Your task to perform on an android device: Open wifi settings Image 0: 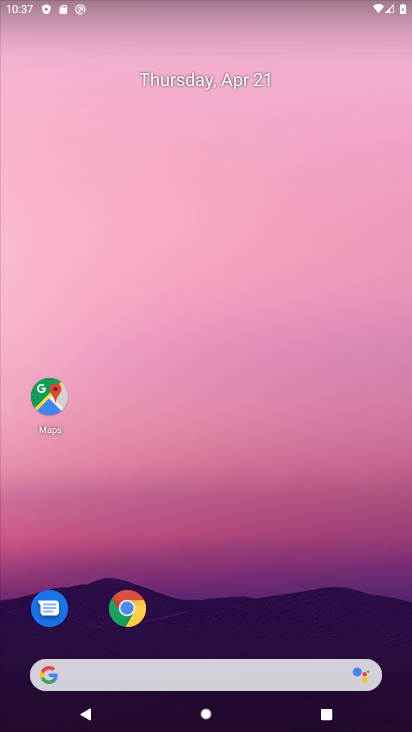
Step 0: drag from (233, 592) to (211, 74)
Your task to perform on an android device: Open wifi settings Image 1: 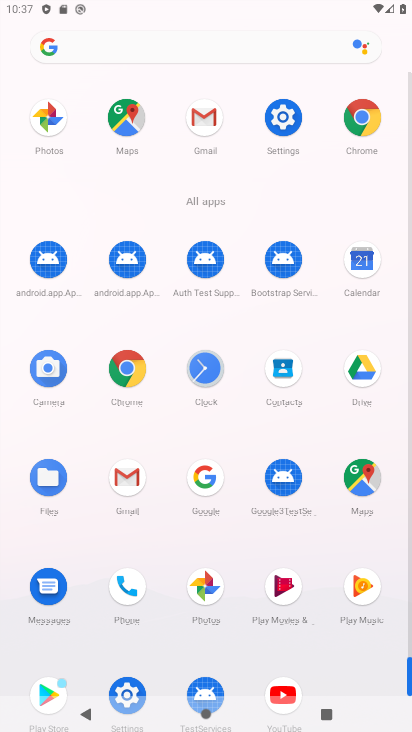
Step 1: click (284, 115)
Your task to perform on an android device: Open wifi settings Image 2: 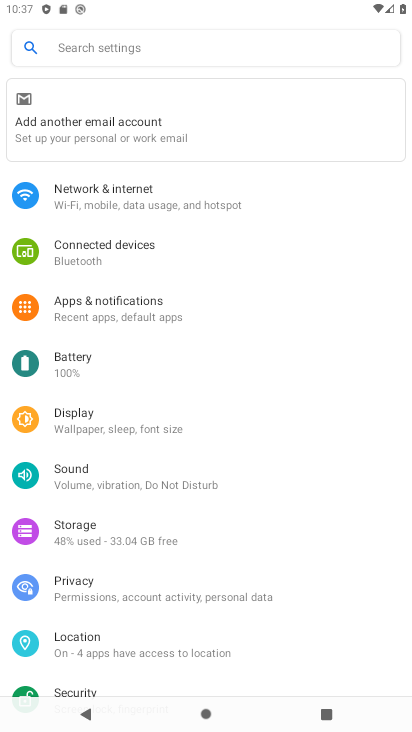
Step 2: click (153, 198)
Your task to perform on an android device: Open wifi settings Image 3: 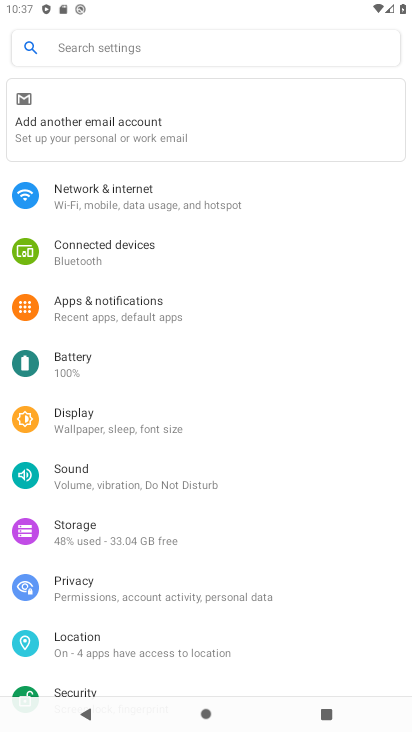
Step 3: click (153, 198)
Your task to perform on an android device: Open wifi settings Image 4: 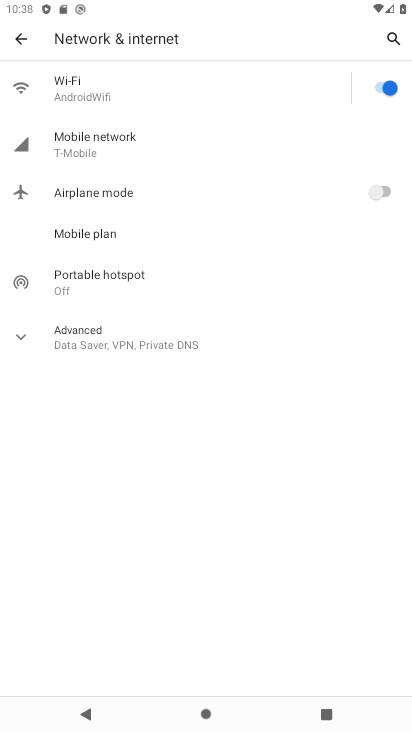
Step 4: click (99, 98)
Your task to perform on an android device: Open wifi settings Image 5: 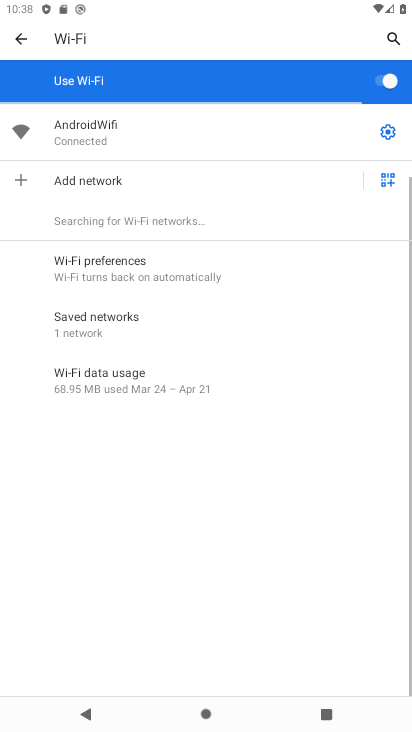
Step 5: click (393, 133)
Your task to perform on an android device: Open wifi settings Image 6: 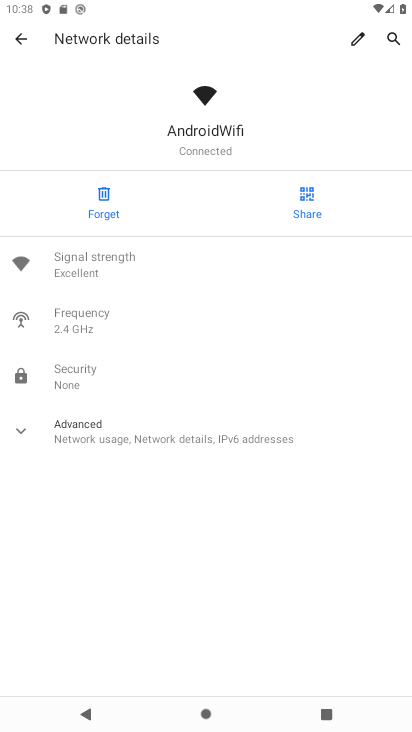
Step 6: task complete